Your task to perform on an android device: allow cookies in the chrome app Image 0: 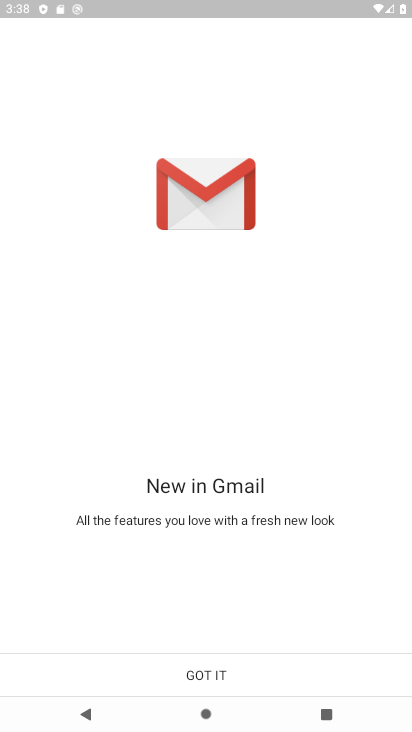
Step 0: press back button
Your task to perform on an android device: allow cookies in the chrome app Image 1: 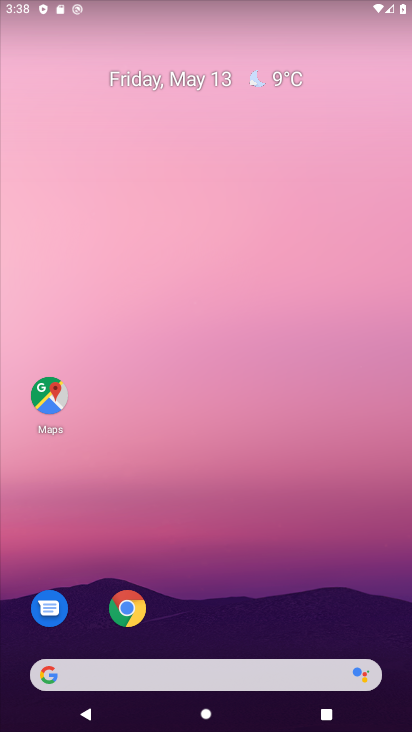
Step 1: click (127, 607)
Your task to perform on an android device: allow cookies in the chrome app Image 2: 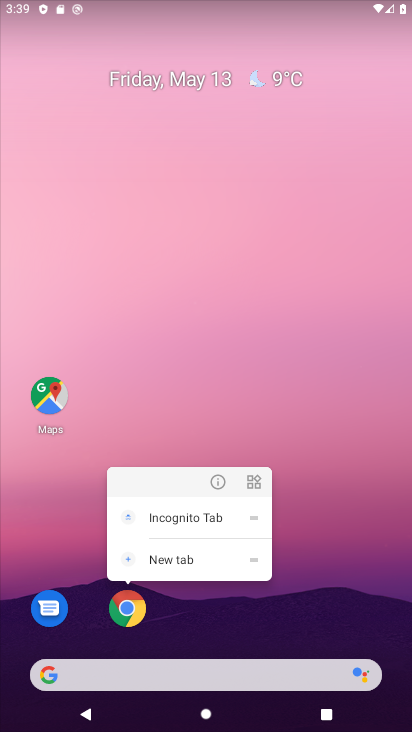
Step 2: click (127, 607)
Your task to perform on an android device: allow cookies in the chrome app Image 3: 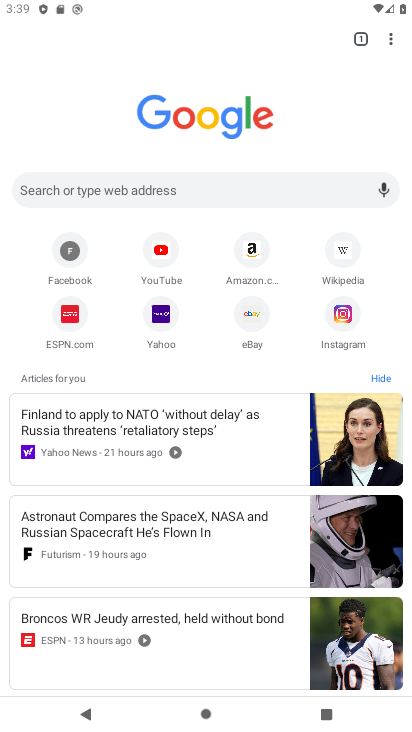
Step 3: click (393, 33)
Your task to perform on an android device: allow cookies in the chrome app Image 4: 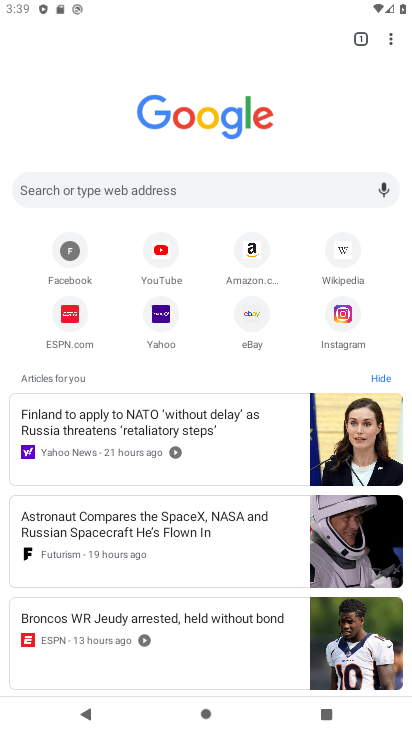
Step 4: click (390, 38)
Your task to perform on an android device: allow cookies in the chrome app Image 5: 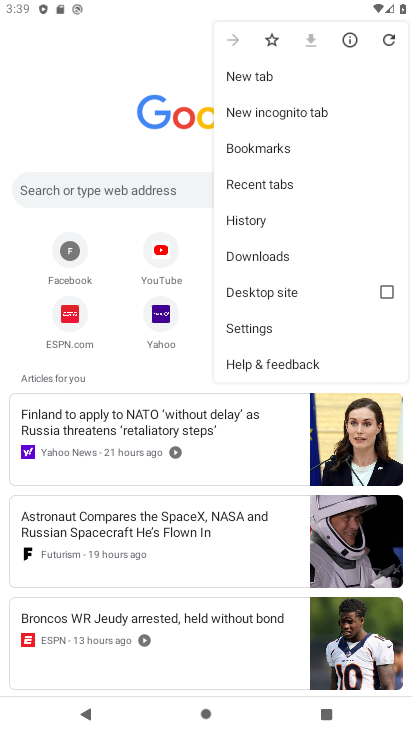
Step 5: click (231, 331)
Your task to perform on an android device: allow cookies in the chrome app Image 6: 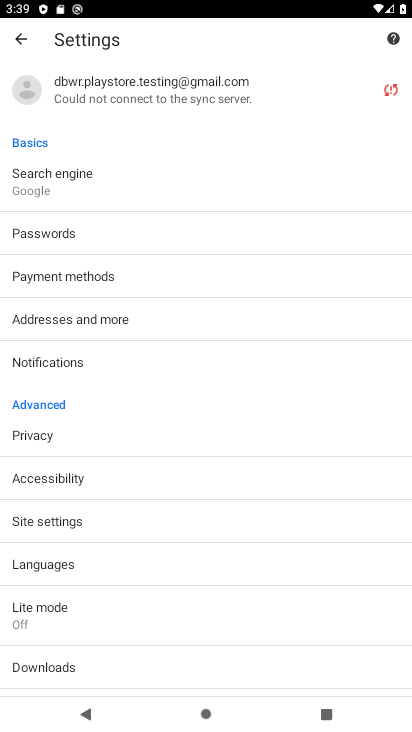
Step 6: click (70, 512)
Your task to perform on an android device: allow cookies in the chrome app Image 7: 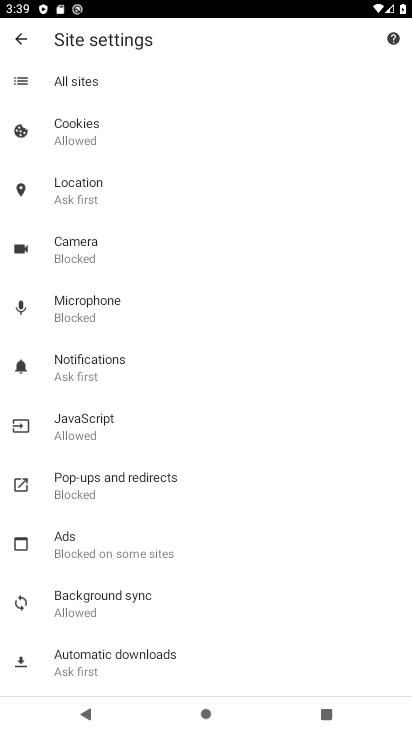
Step 7: click (89, 133)
Your task to perform on an android device: allow cookies in the chrome app Image 8: 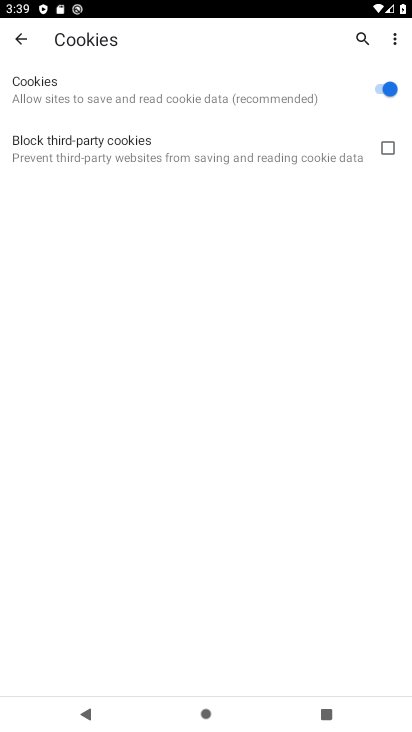
Step 8: task complete